Your task to perform on an android device: Search for good Greek restaurants Image 0: 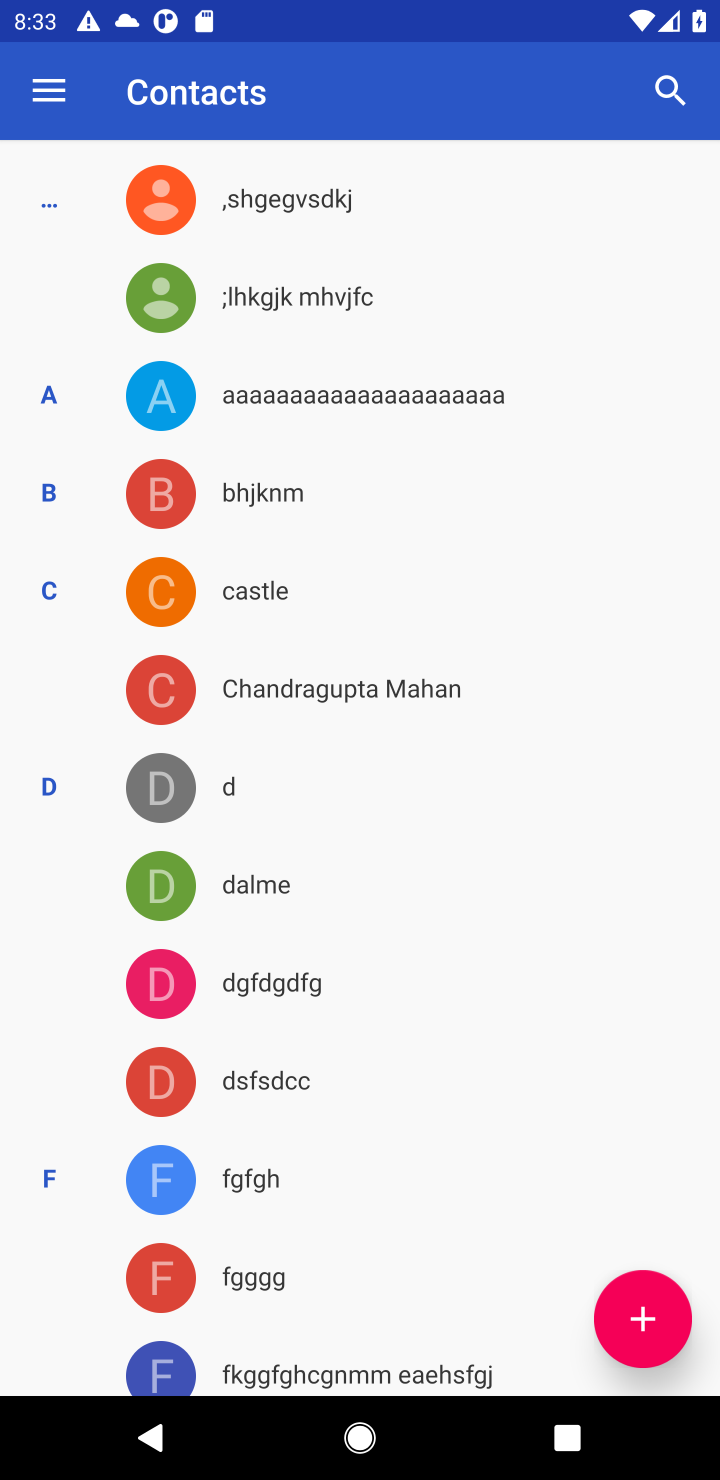
Step 0: press home button
Your task to perform on an android device: Search for good Greek restaurants Image 1: 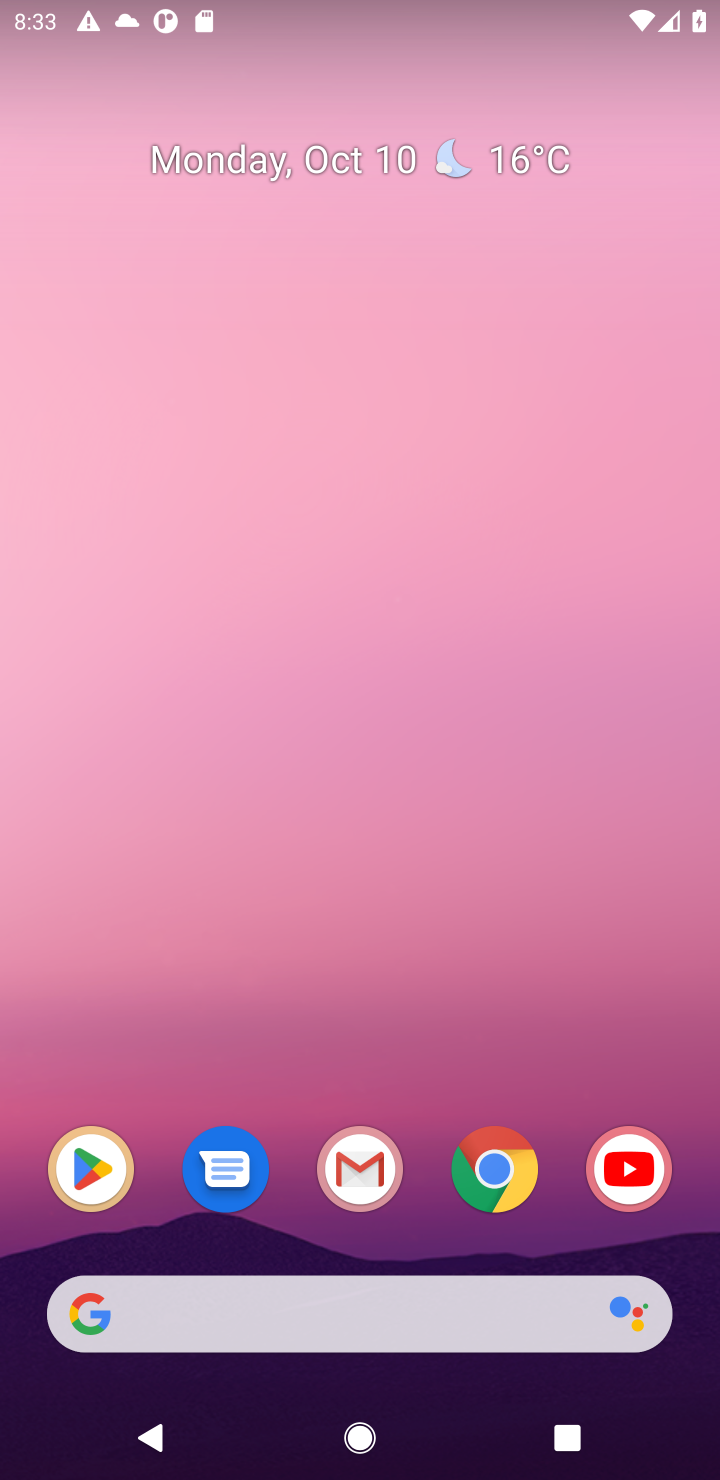
Step 1: click (488, 1196)
Your task to perform on an android device: Search for good Greek restaurants Image 2: 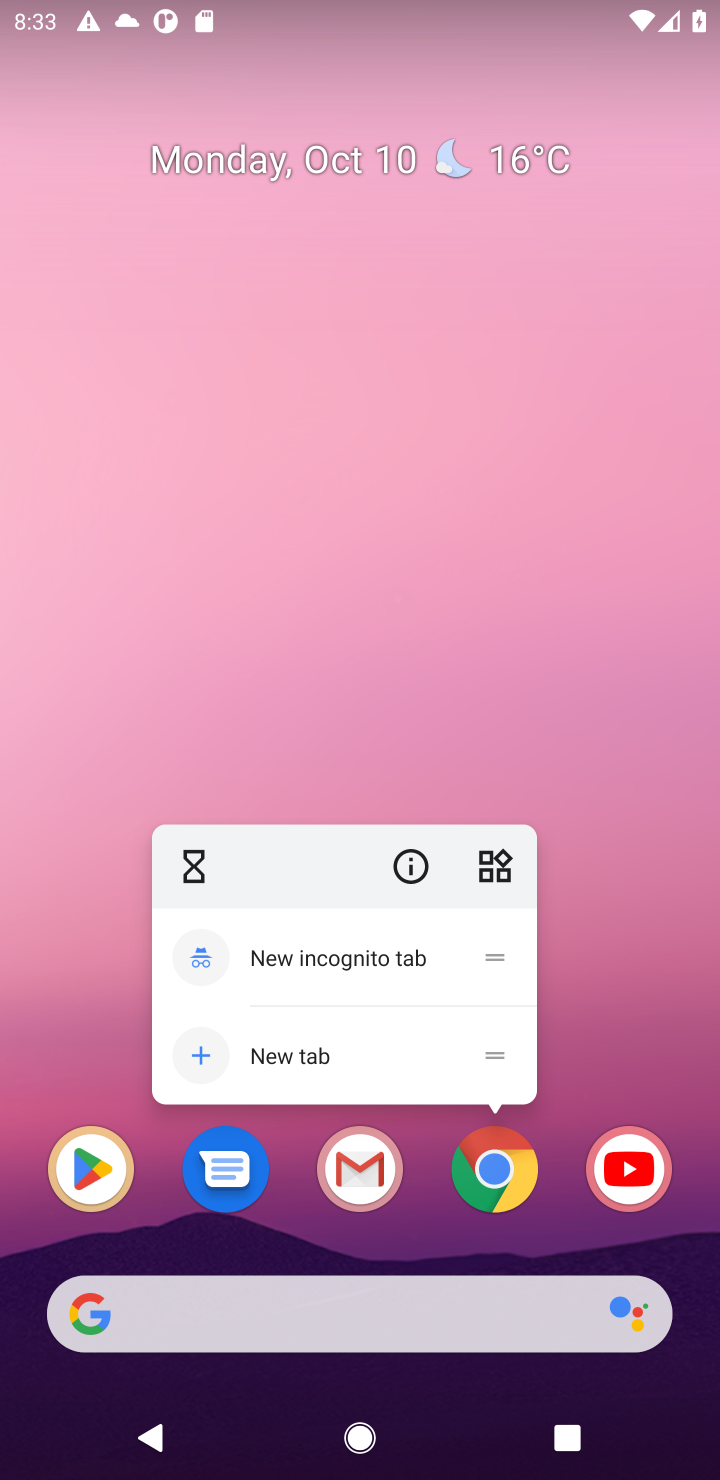
Step 2: click (488, 1196)
Your task to perform on an android device: Search for good Greek restaurants Image 3: 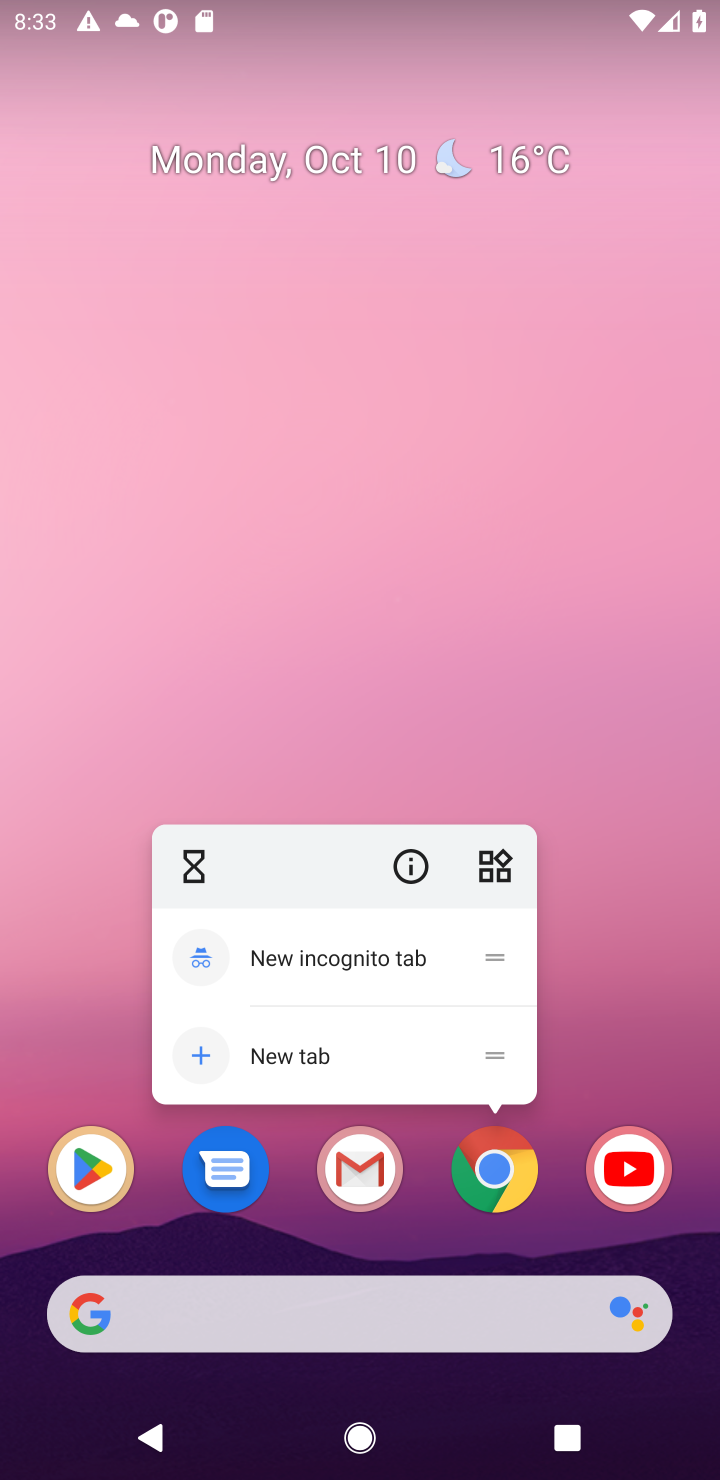
Step 3: click (526, 1173)
Your task to perform on an android device: Search for good Greek restaurants Image 4: 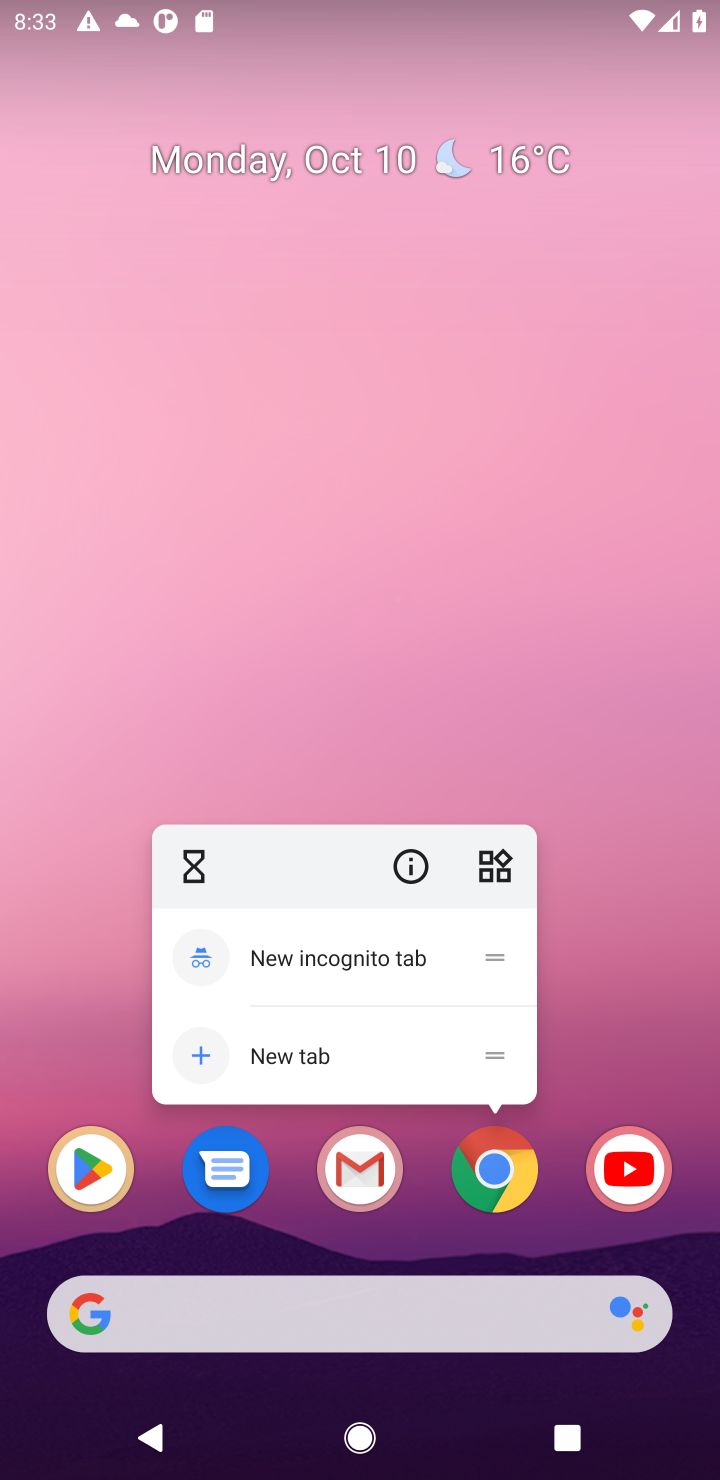
Step 4: click (530, 512)
Your task to perform on an android device: Search for good Greek restaurants Image 5: 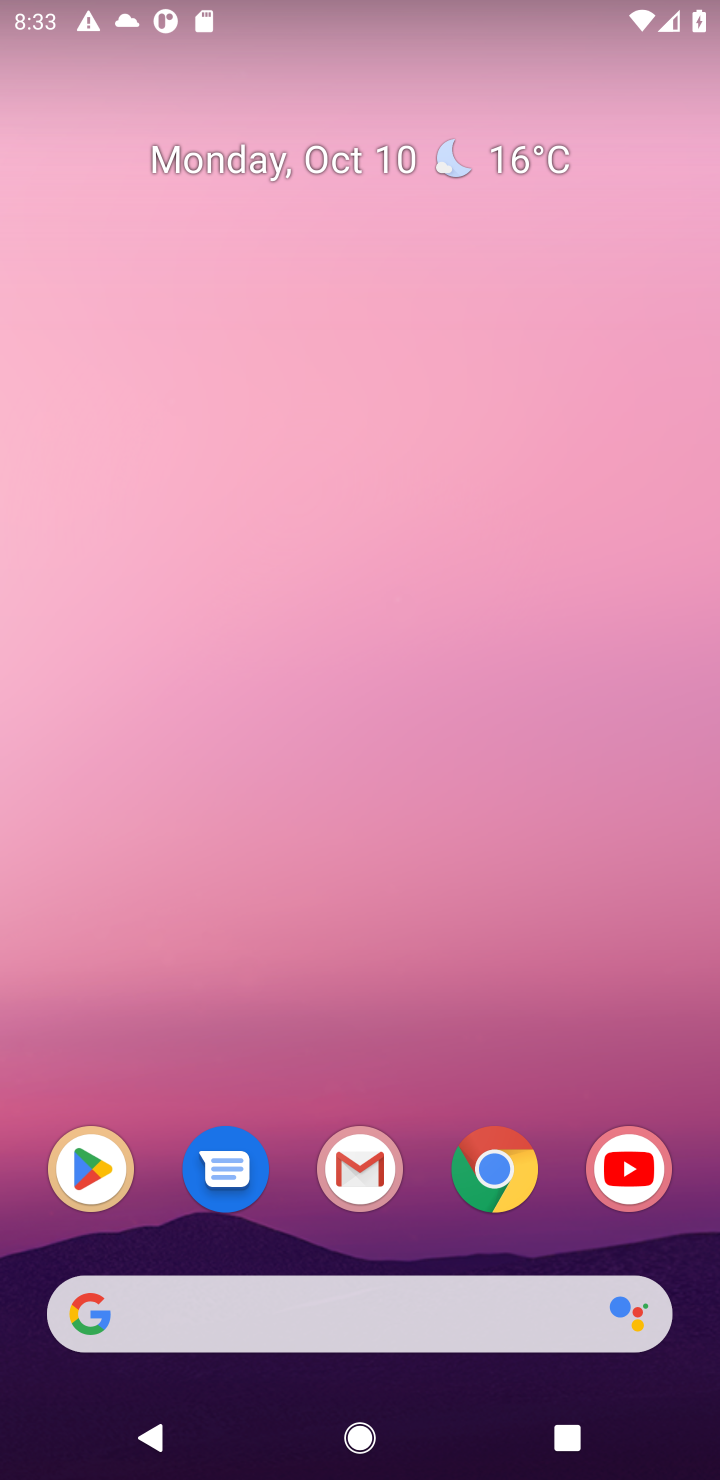
Step 5: click (505, 1166)
Your task to perform on an android device: Search for good Greek restaurants Image 6: 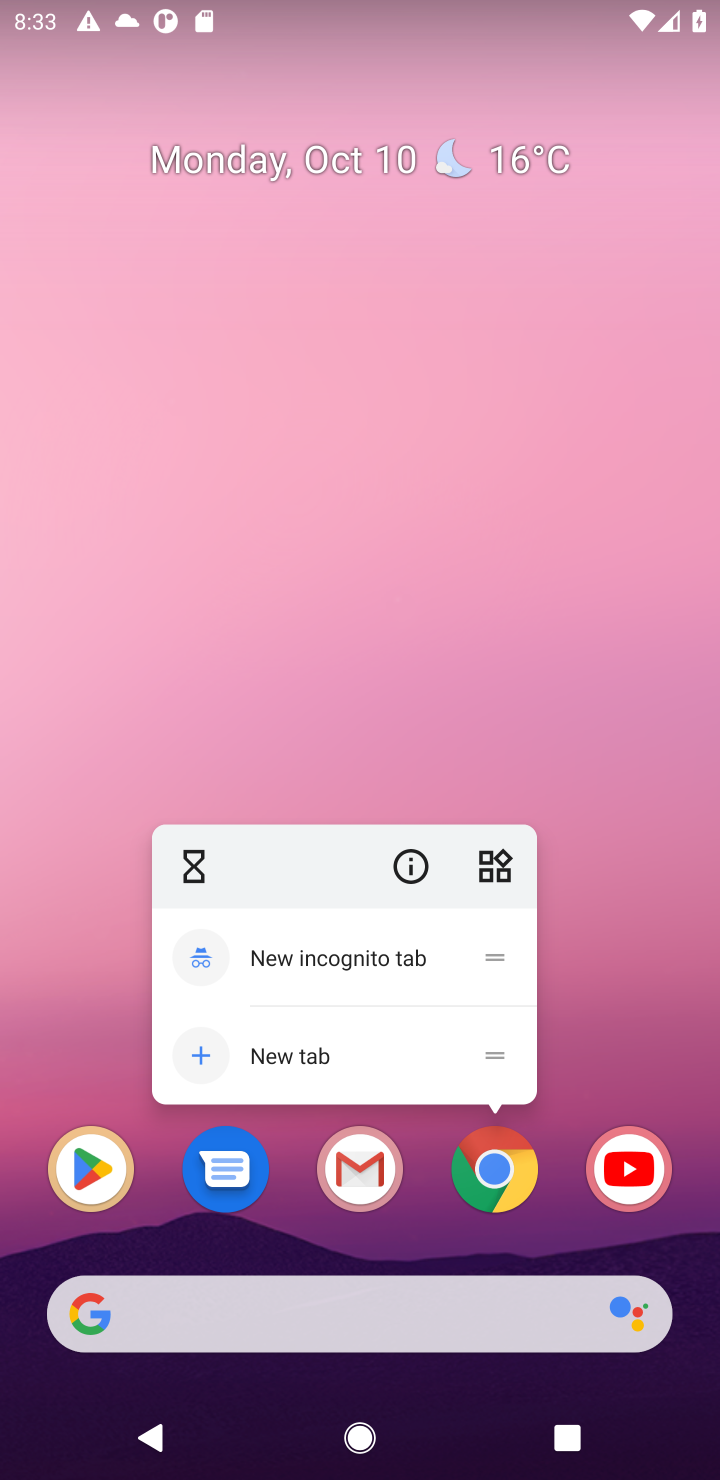
Step 6: click (601, 1050)
Your task to perform on an android device: Search for good Greek restaurants Image 7: 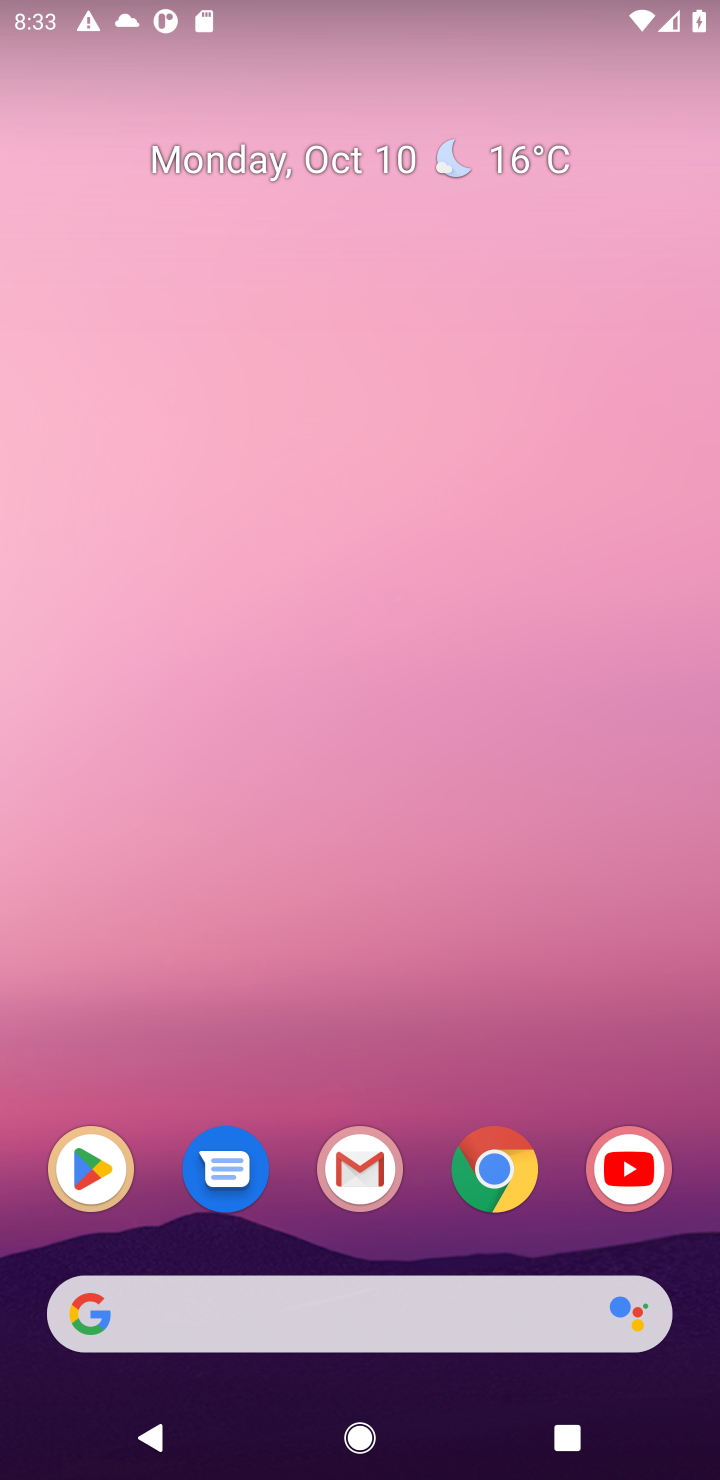
Step 7: click (499, 1176)
Your task to perform on an android device: Search for good Greek restaurants Image 8: 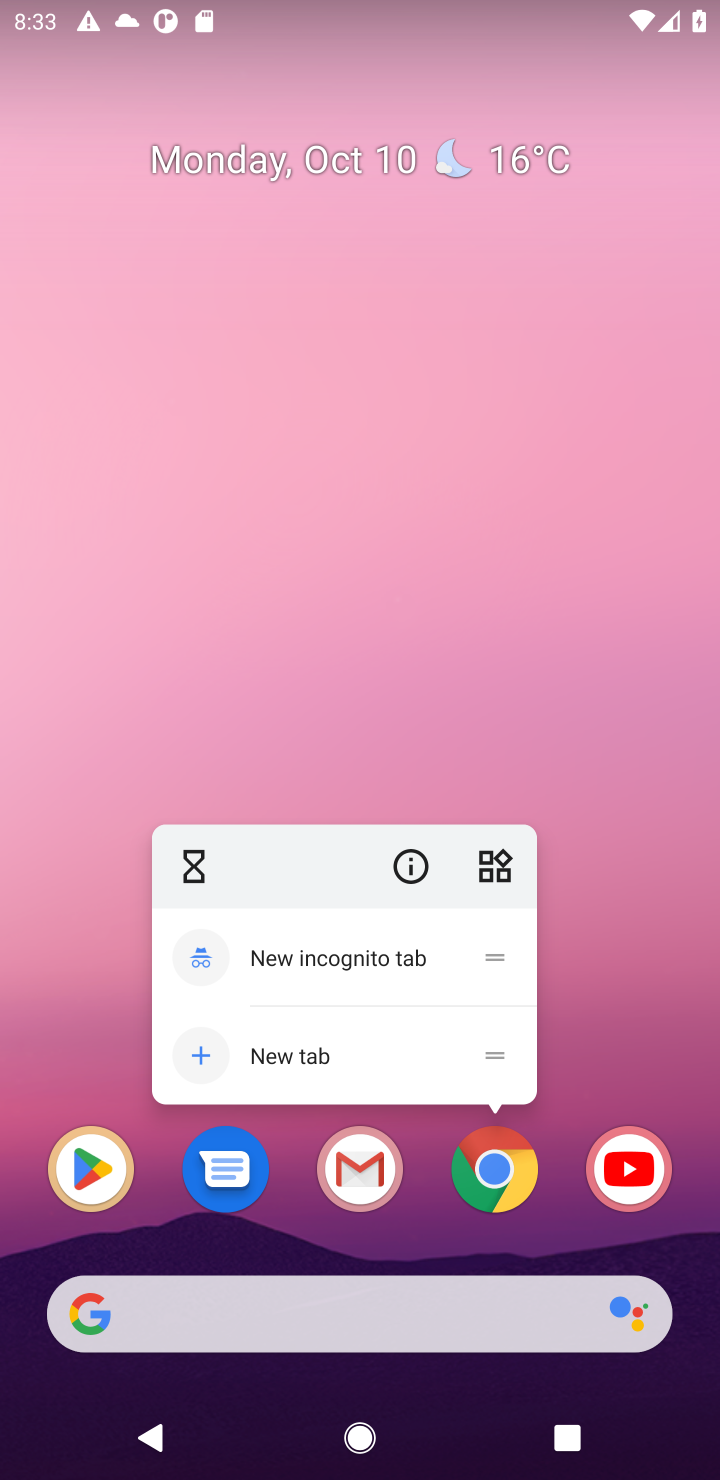
Step 8: click (561, 719)
Your task to perform on an android device: Search for good Greek restaurants Image 9: 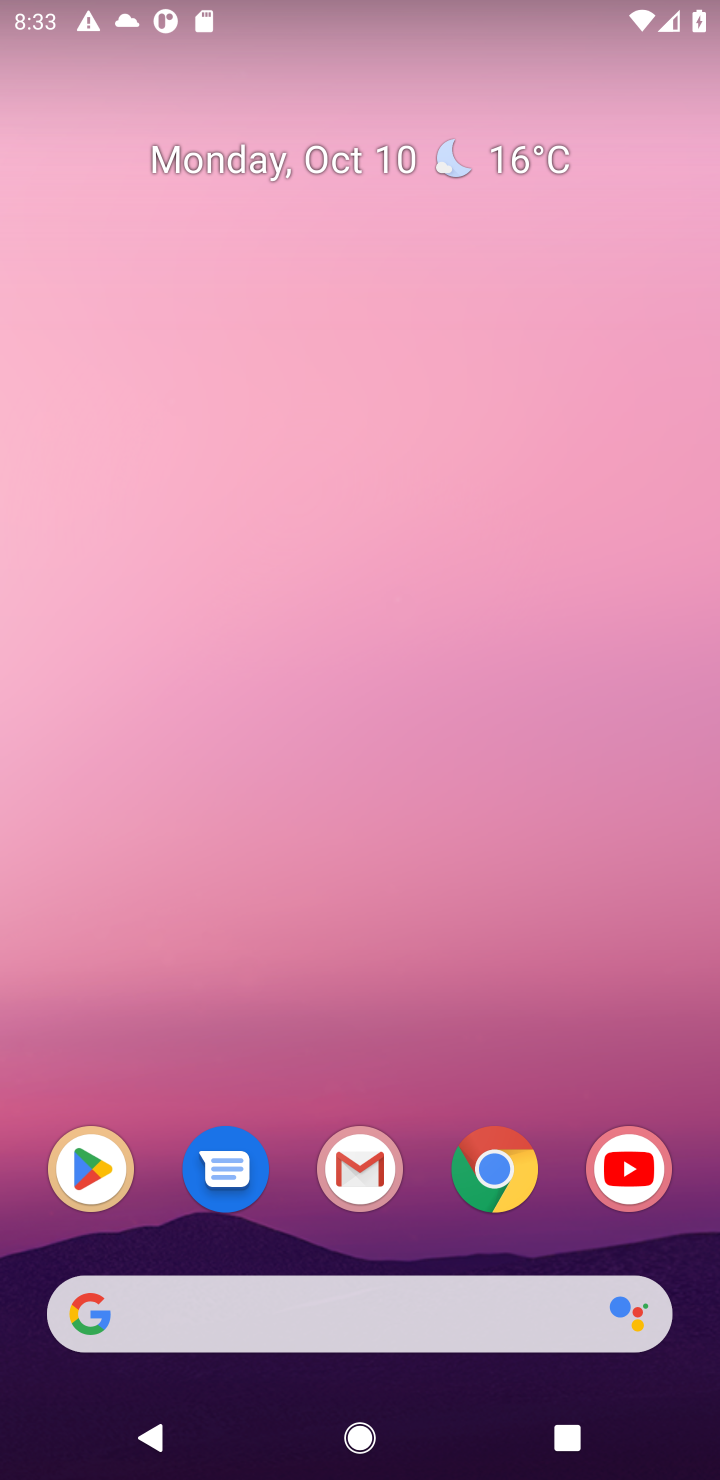
Step 9: click (507, 1159)
Your task to perform on an android device: Search for good Greek restaurants Image 10: 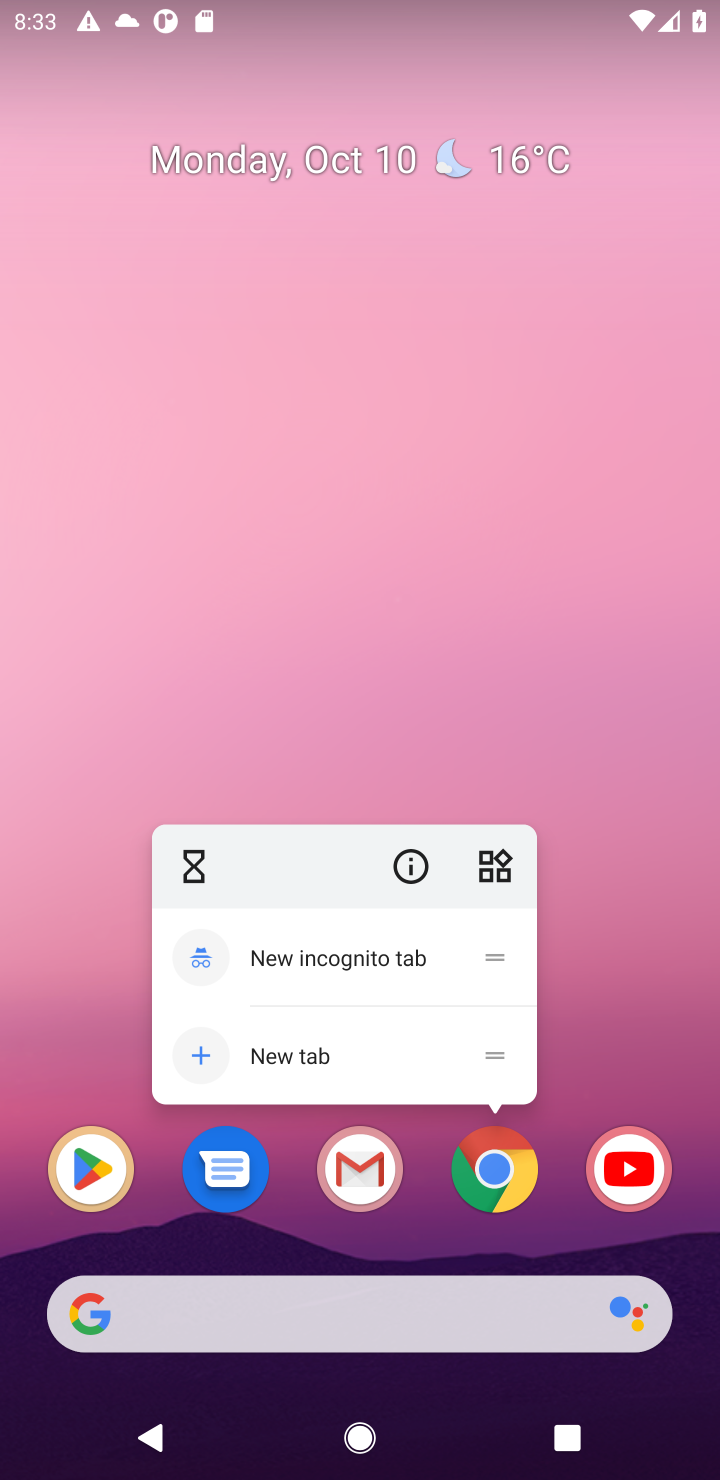
Step 10: click (167, 1305)
Your task to perform on an android device: Search for good Greek restaurants Image 11: 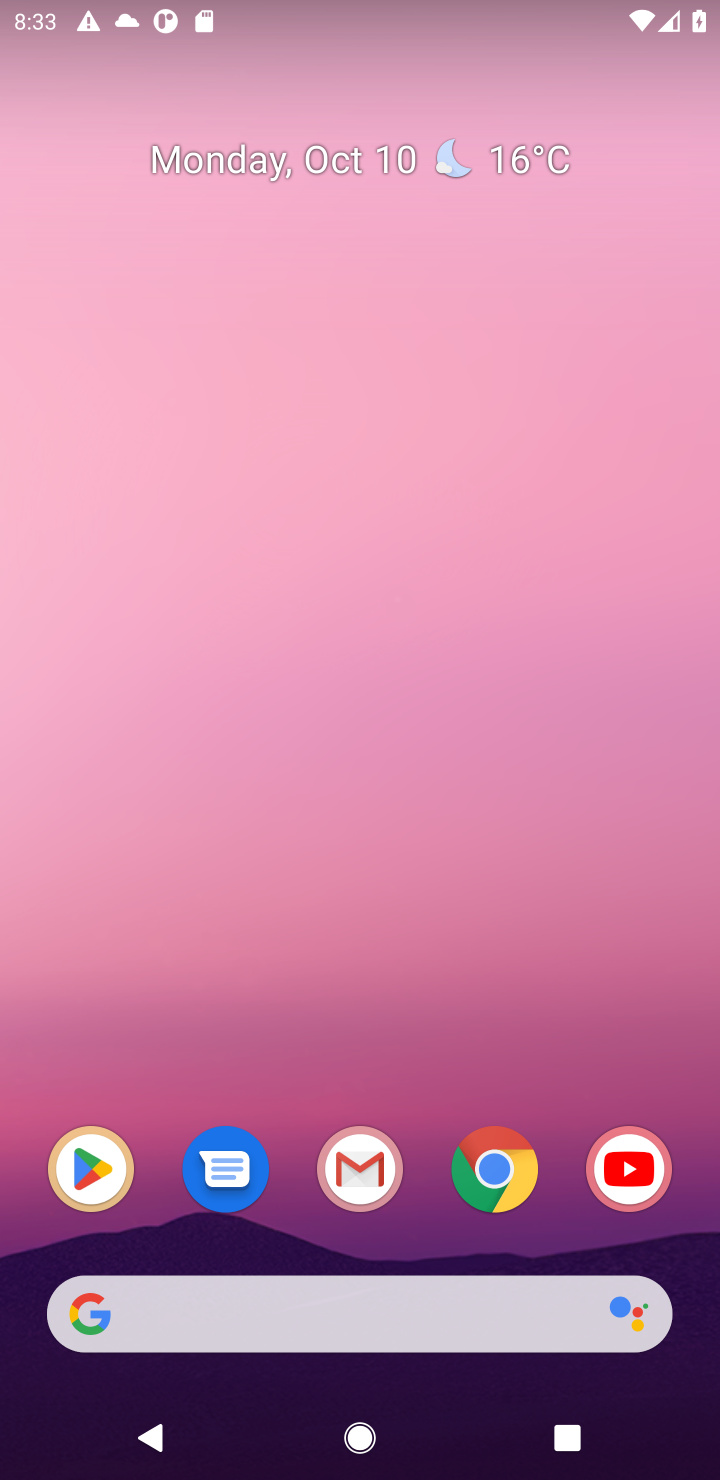
Step 11: click (234, 1318)
Your task to perform on an android device: Search for good Greek restaurants Image 12: 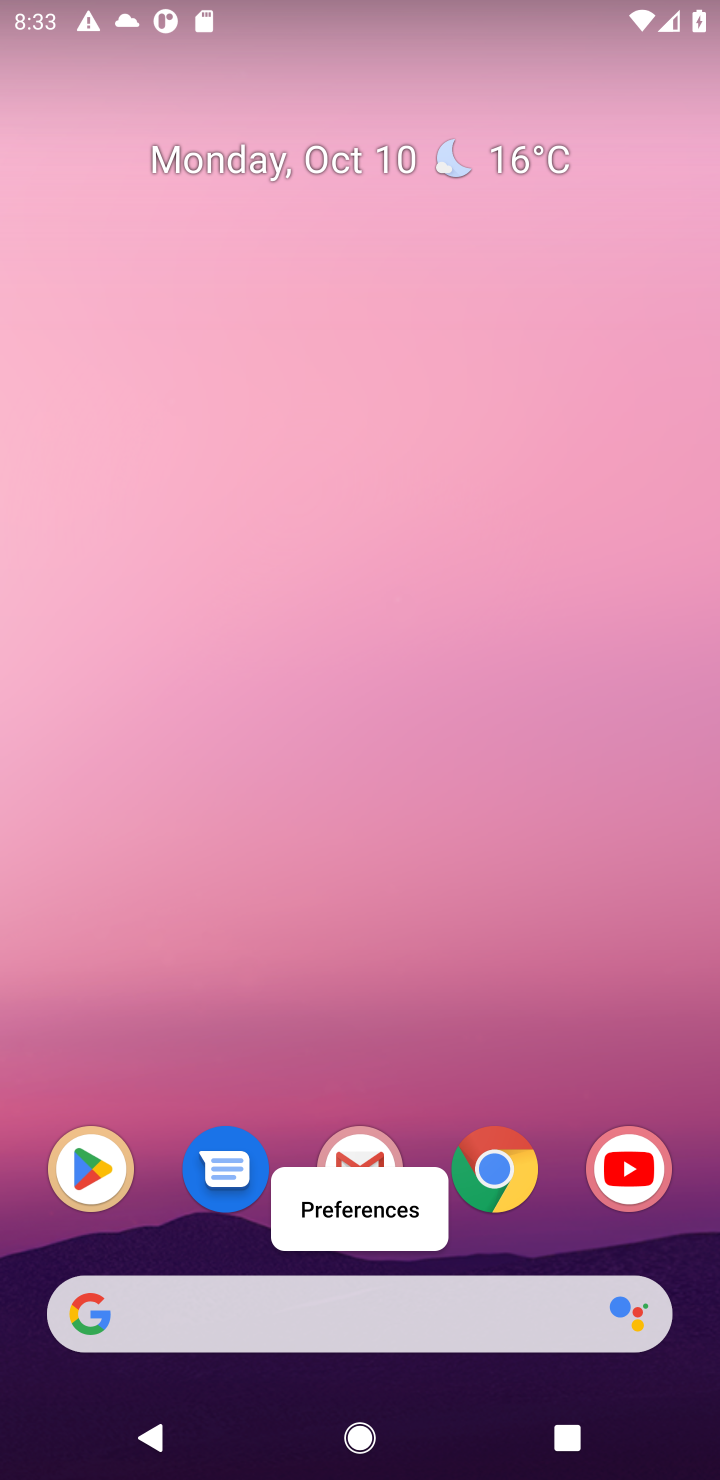
Step 12: click (234, 900)
Your task to perform on an android device: Search for good Greek restaurants Image 13: 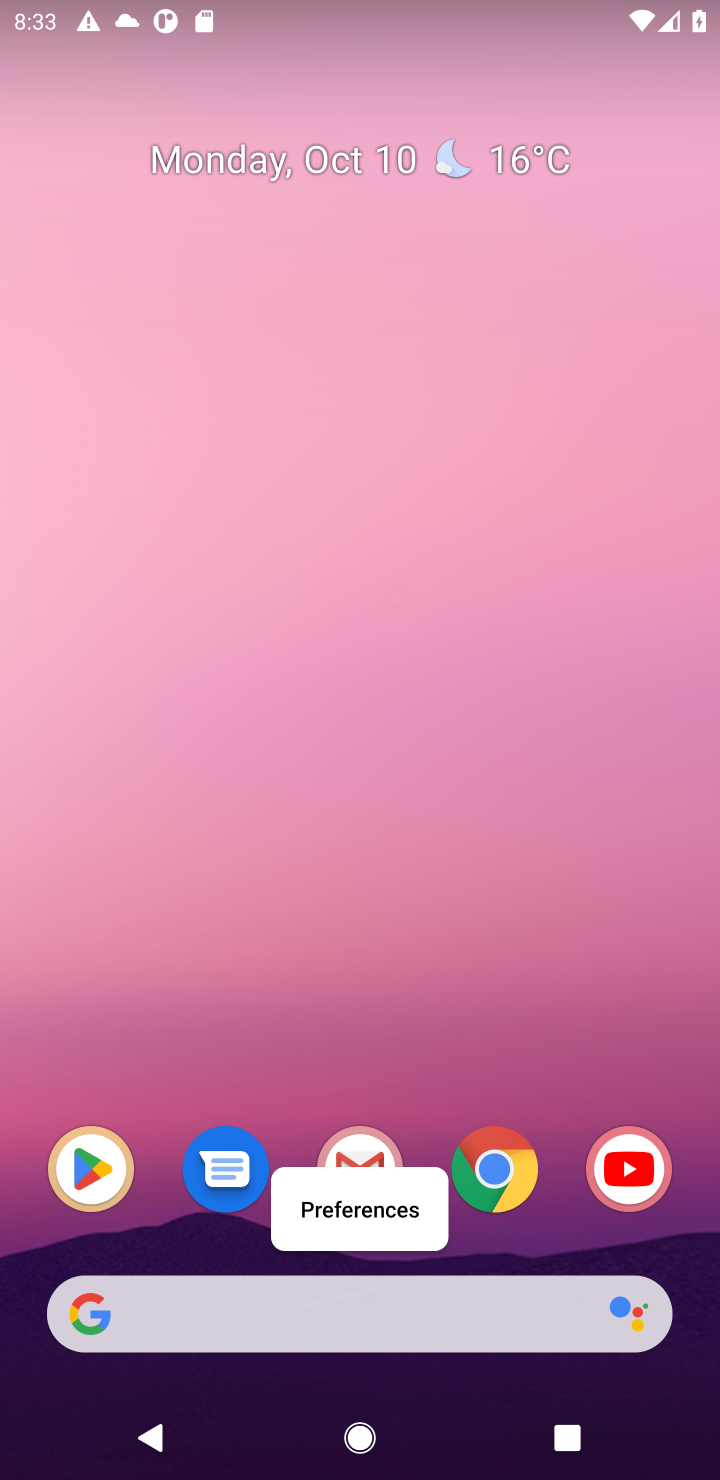
Step 13: click (234, 900)
Your task to perform on an android device: Search for good Greek restaurants Image 14: 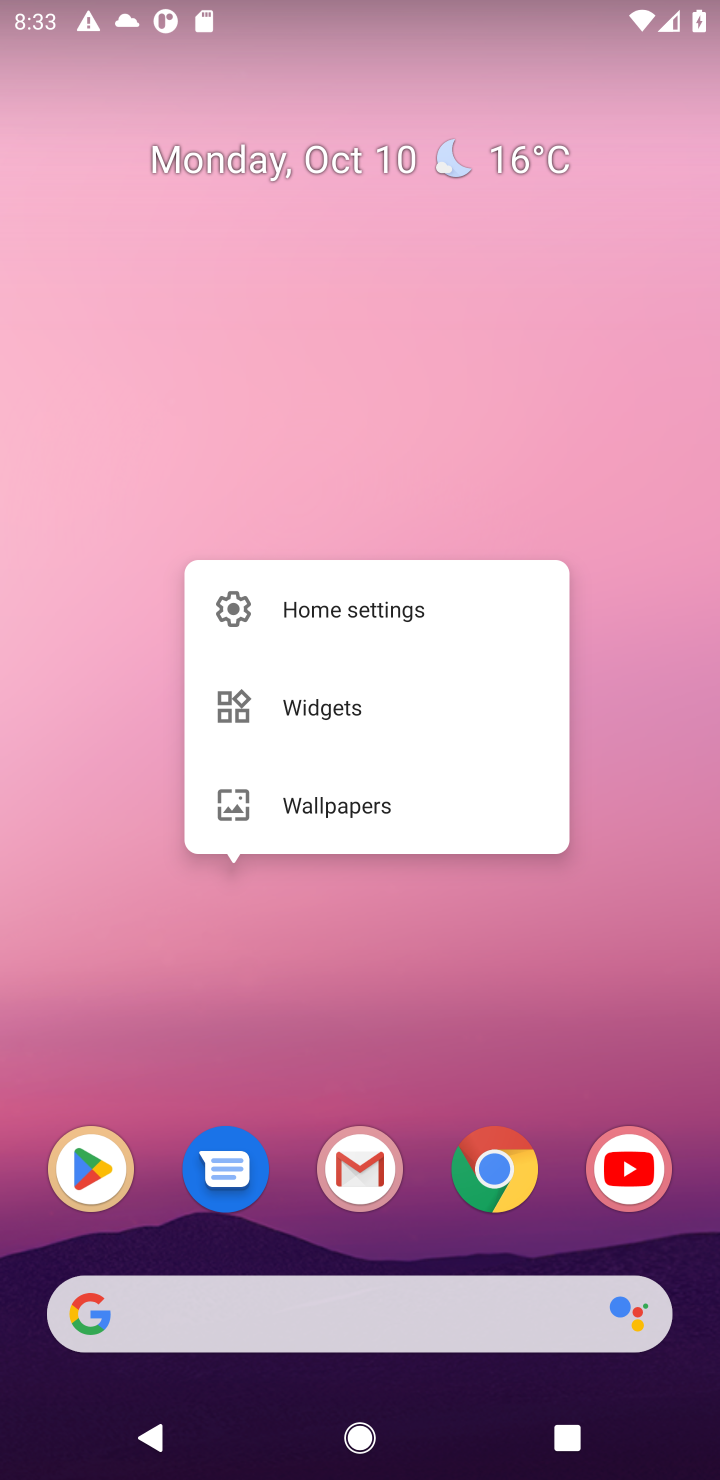
Step 14: click (525, 1171)
Your task to perform on an android device: Search for good Greek restaurants Image 15: 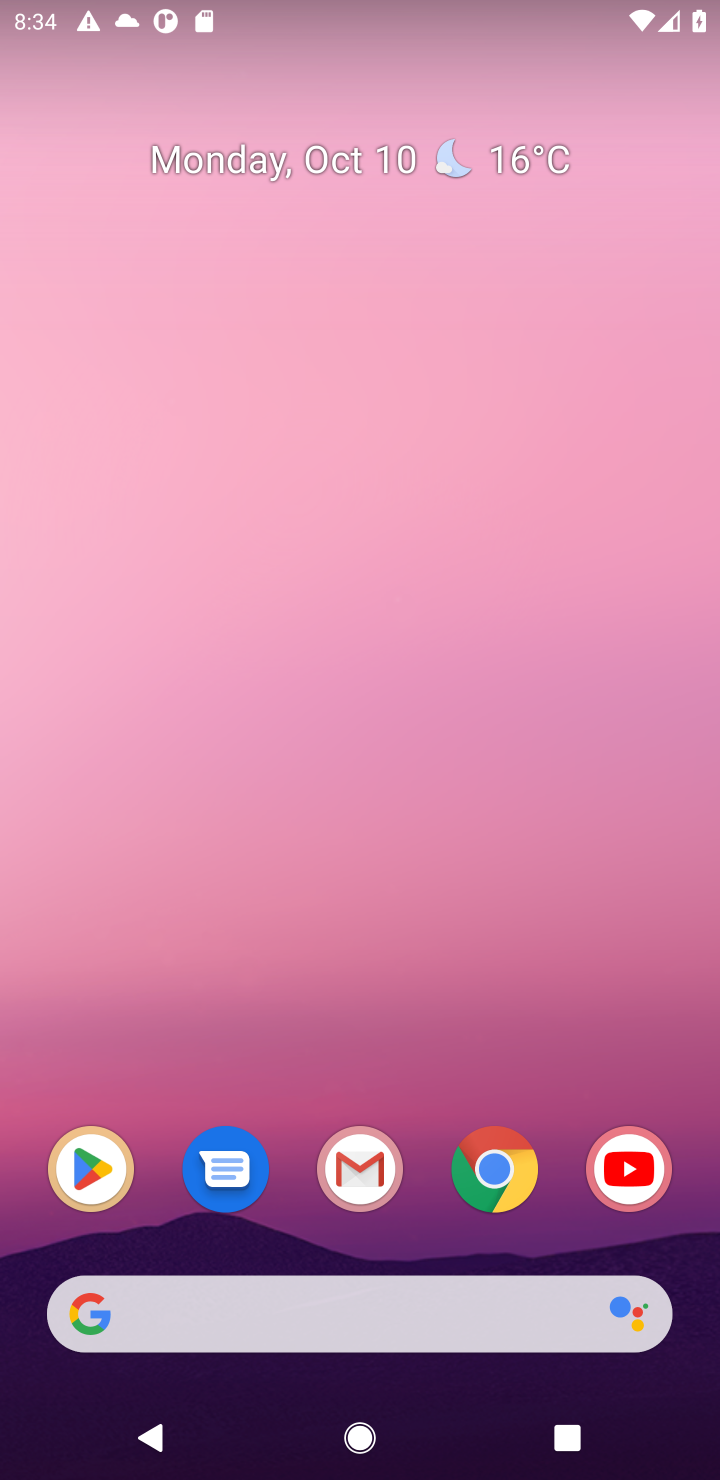
Step 15: click (515, 1163)
Your task to perform on an android device: Search for good Greek restaurants Image 16: 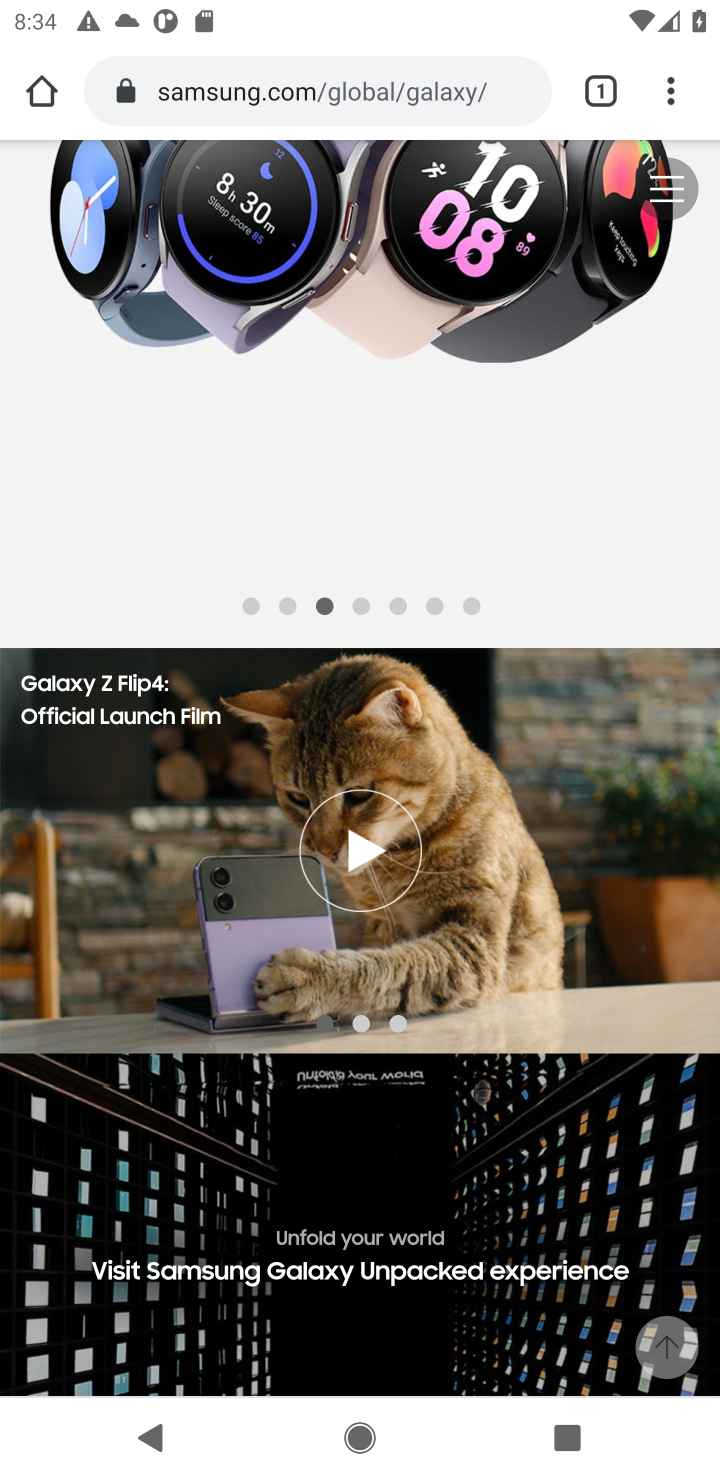
Step 16: click (275, 89)
Your task to perform on an android device: Search for good Greek restaurants Image 17: 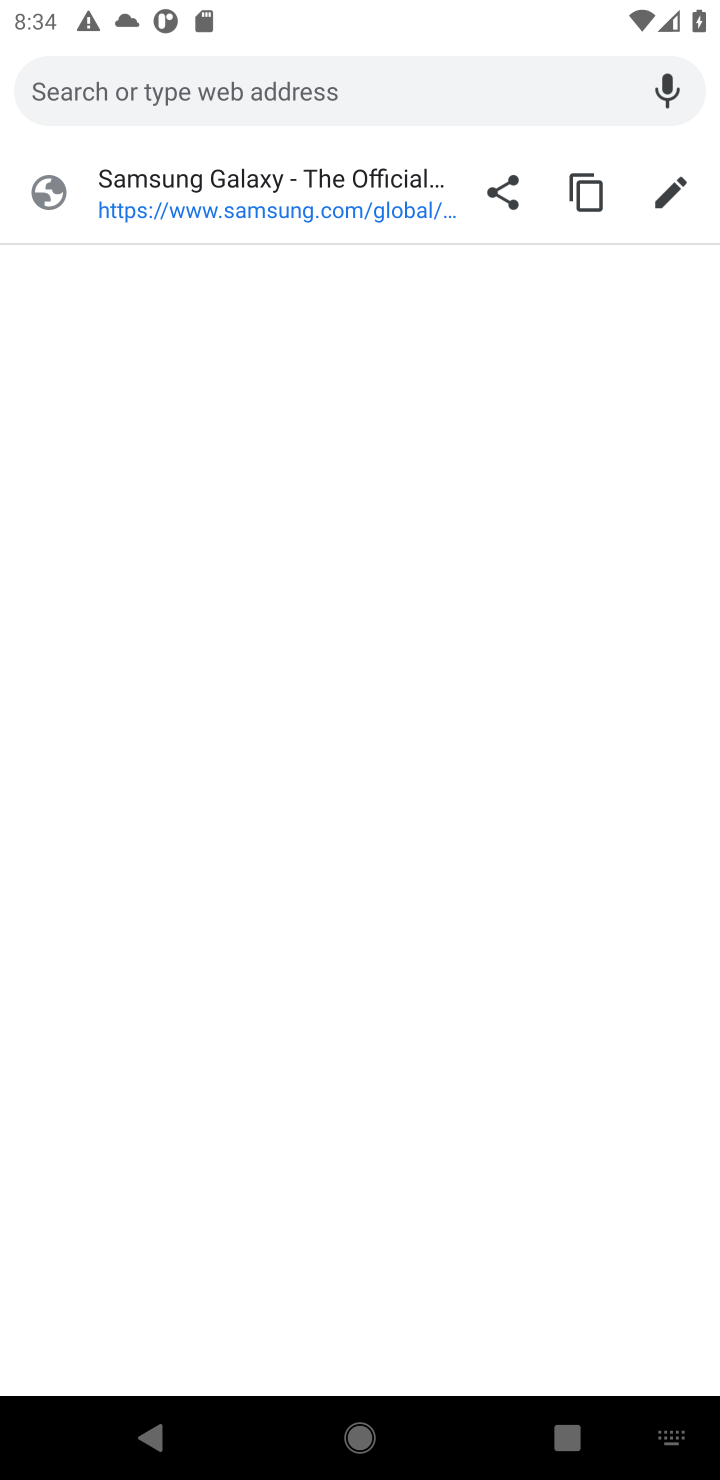
Step 17: type "good Greek restaurants"
Your task to perform on an android device: Search for good Greek restaurants Image 18: 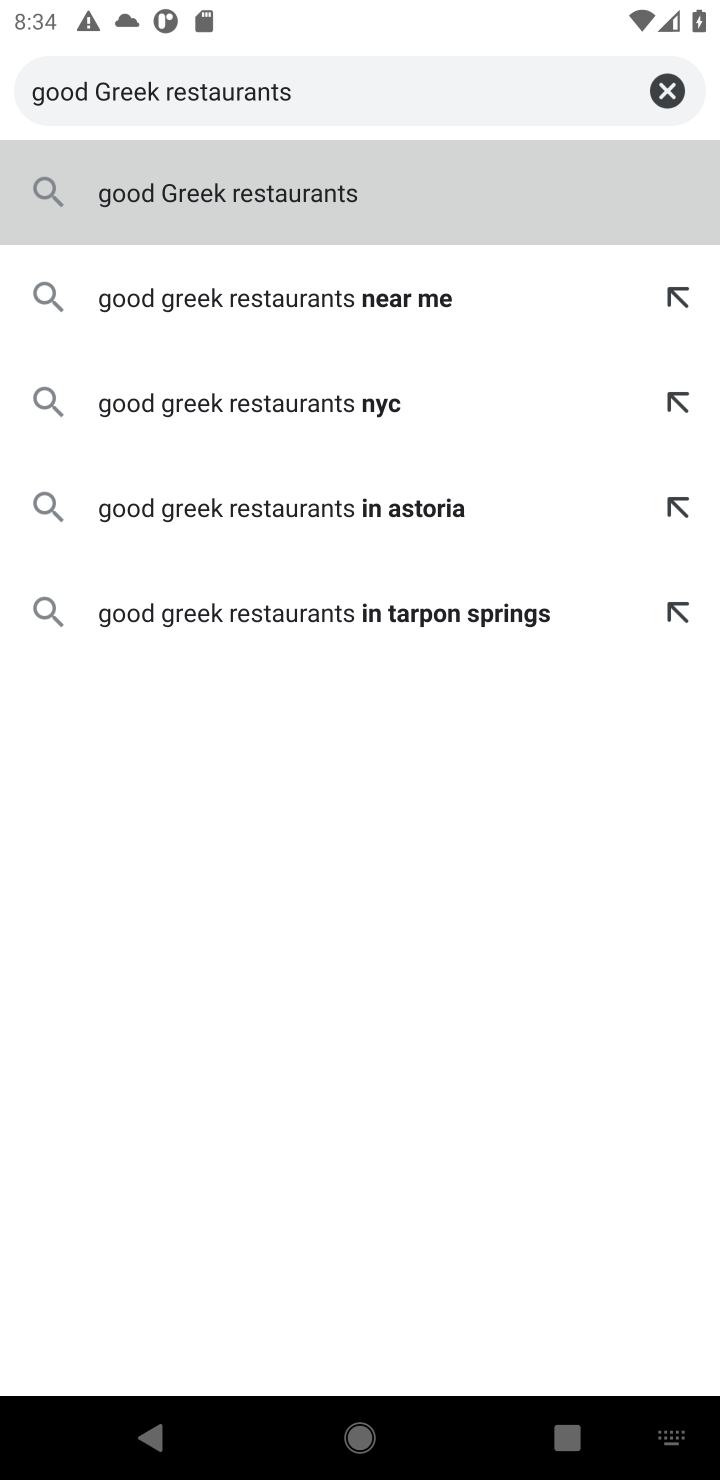
Step 18: press enter
Your task to perform on an android device: Search for good Greek restaurants Image 19: 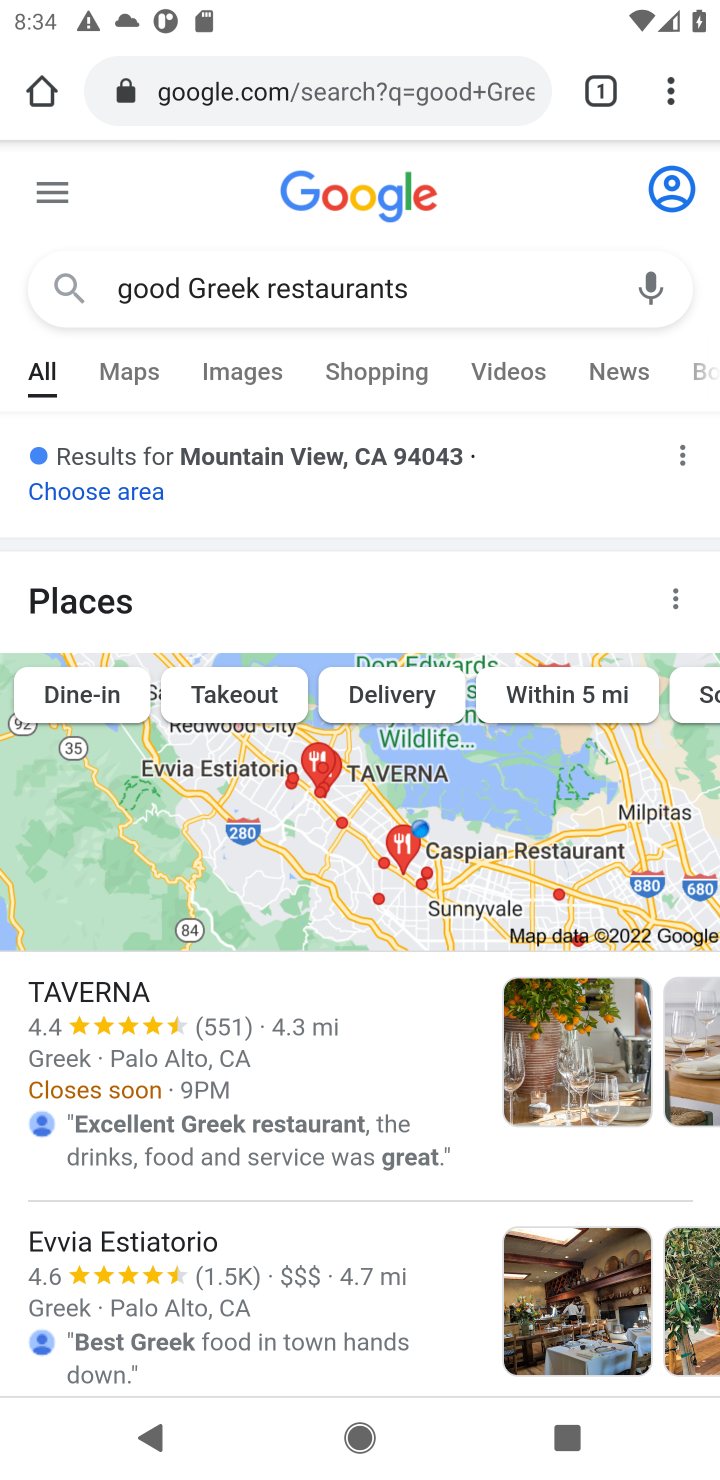
Step 19: drag from (354, 1165) to (273, 705)
Your task to perform on an android device: Search for good Greek restaurants Image 20: 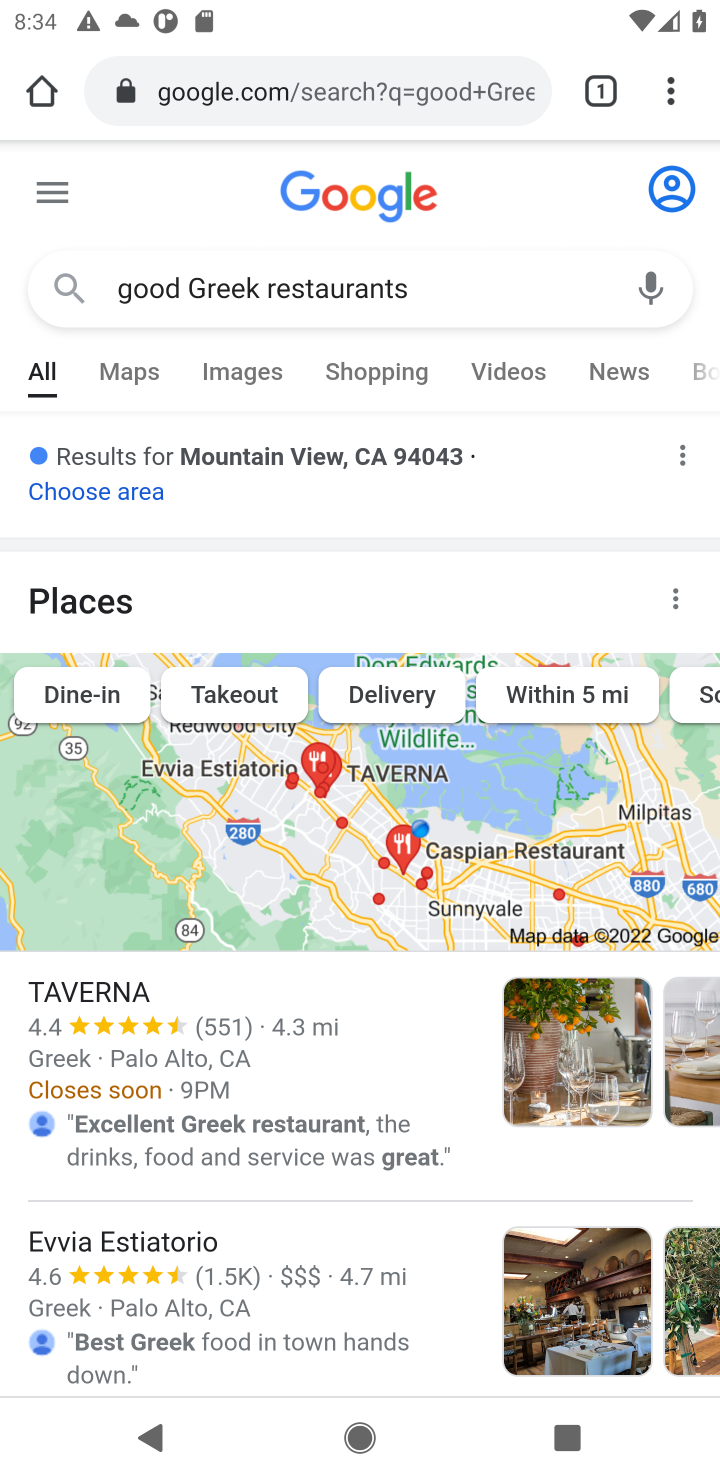
Step 20: drag from (414, 1241) to (281, 881)
Your task to perform on an android device: Search for good Greek restaurants Image 21: 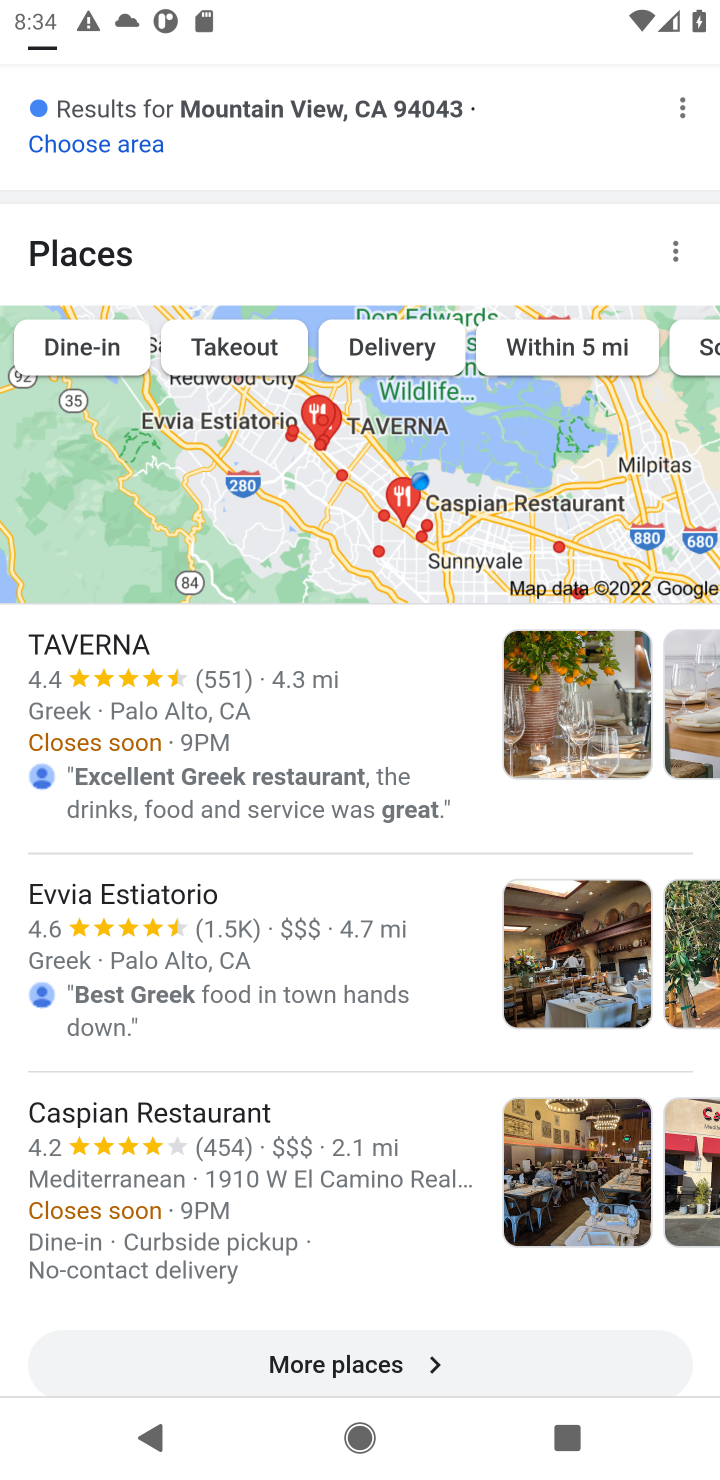
Step 21: click (346, 1369)
Your task to perform on an android device: Search for good Greek restaurants Image 22: 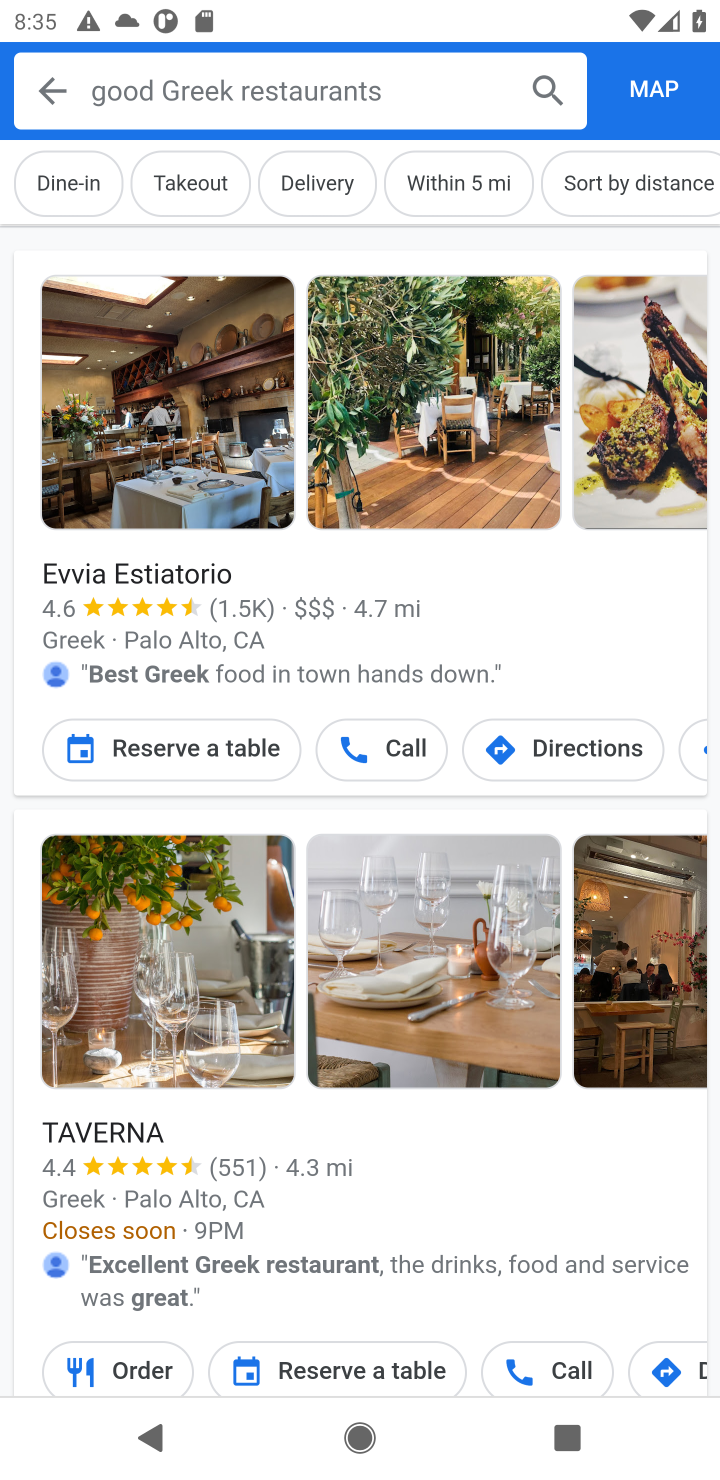
Step 22: task complete